Your task to perform on an android device: toggle sleep mode Image 0: 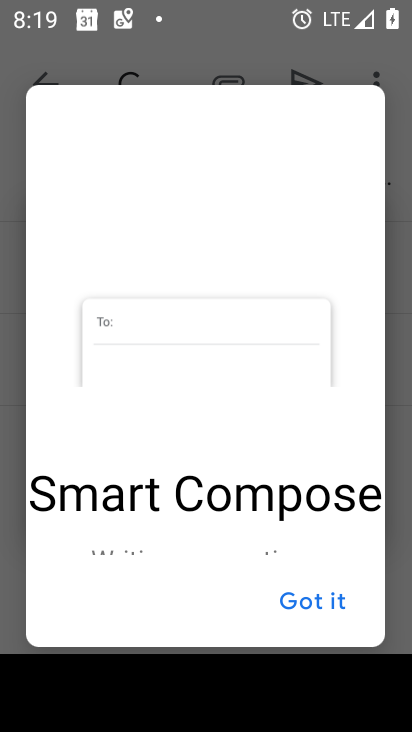
Step 0: press home button
Your task to perform on an android device: toggle sleep mode Image 1: 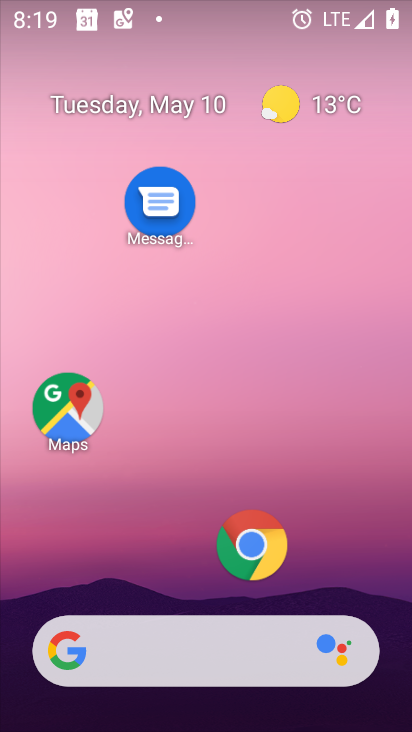
Step 1: drag from (189, 586) to (164, 126)
Your task to perform on an android device: toggle sleep mode Image 2: 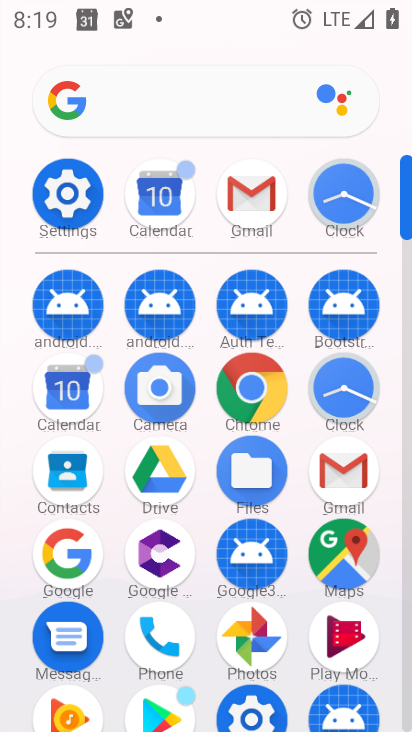
Step 2: click (61, 187)
Your task to perform on an android device: toggle sleep mode Image 3: 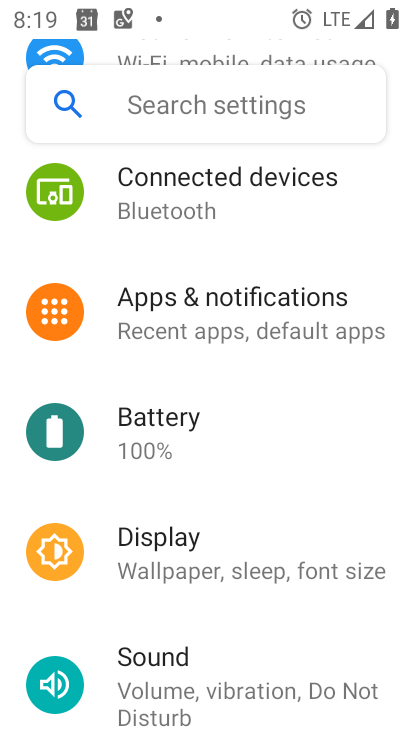
Step 3: click (210, 537)
Your task to perform on an android device: toggle sleep mode Image 4: 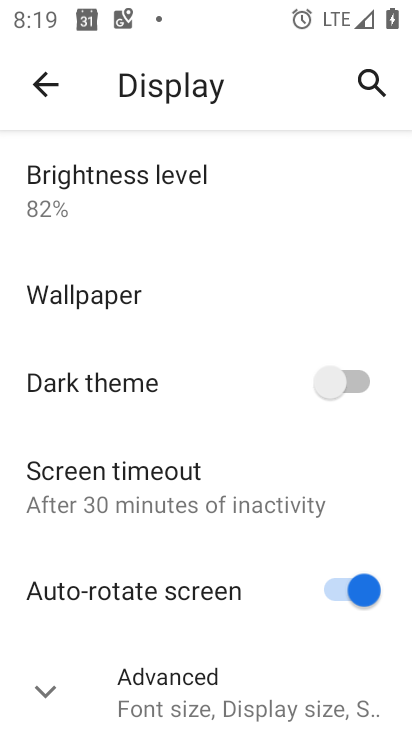
Step 4: task complete